Your task to perform on an android device: open app "Google Pay: Save, Pay, Manage" Image 0: 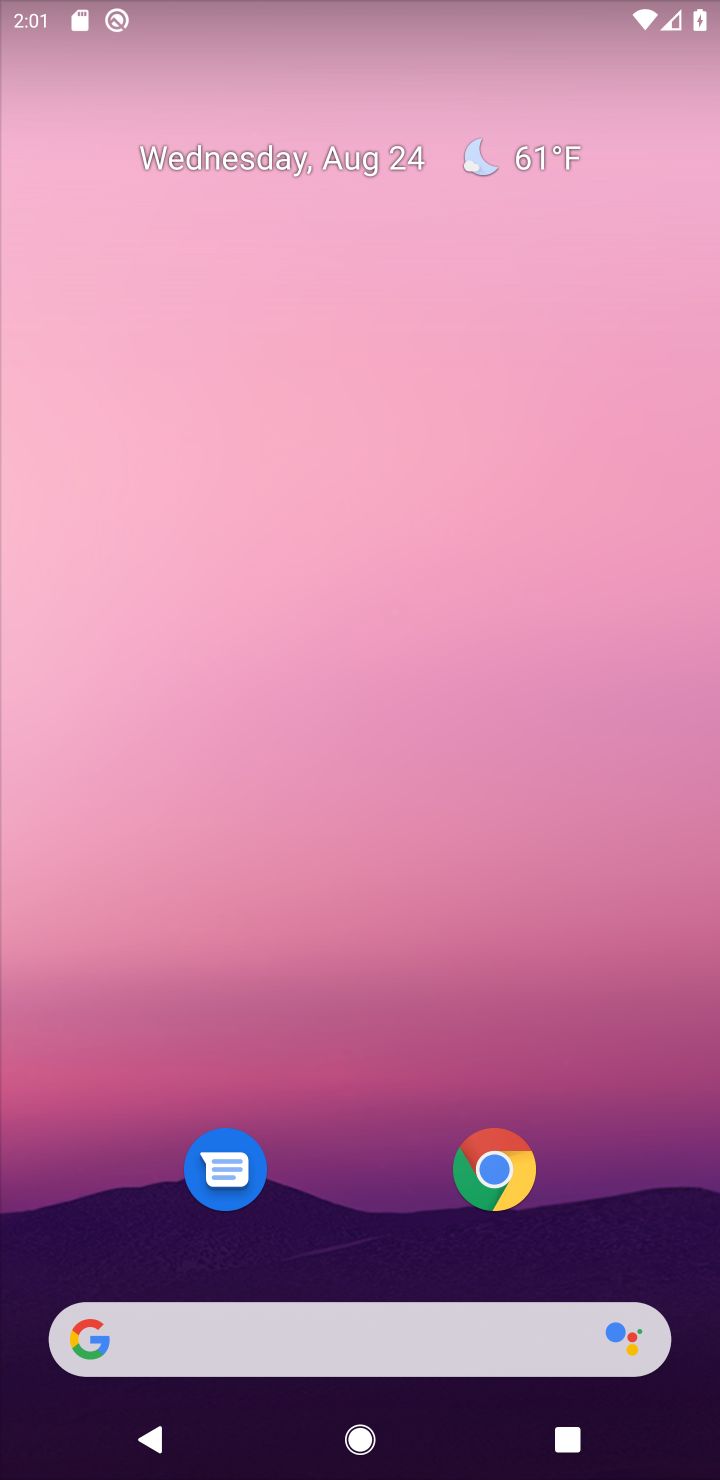
Step 0: drag from (335, 1240) to (626, 39)
Your task to perform on an android device: open app "Google Pay: Save, Pay, Manage" Image 1: 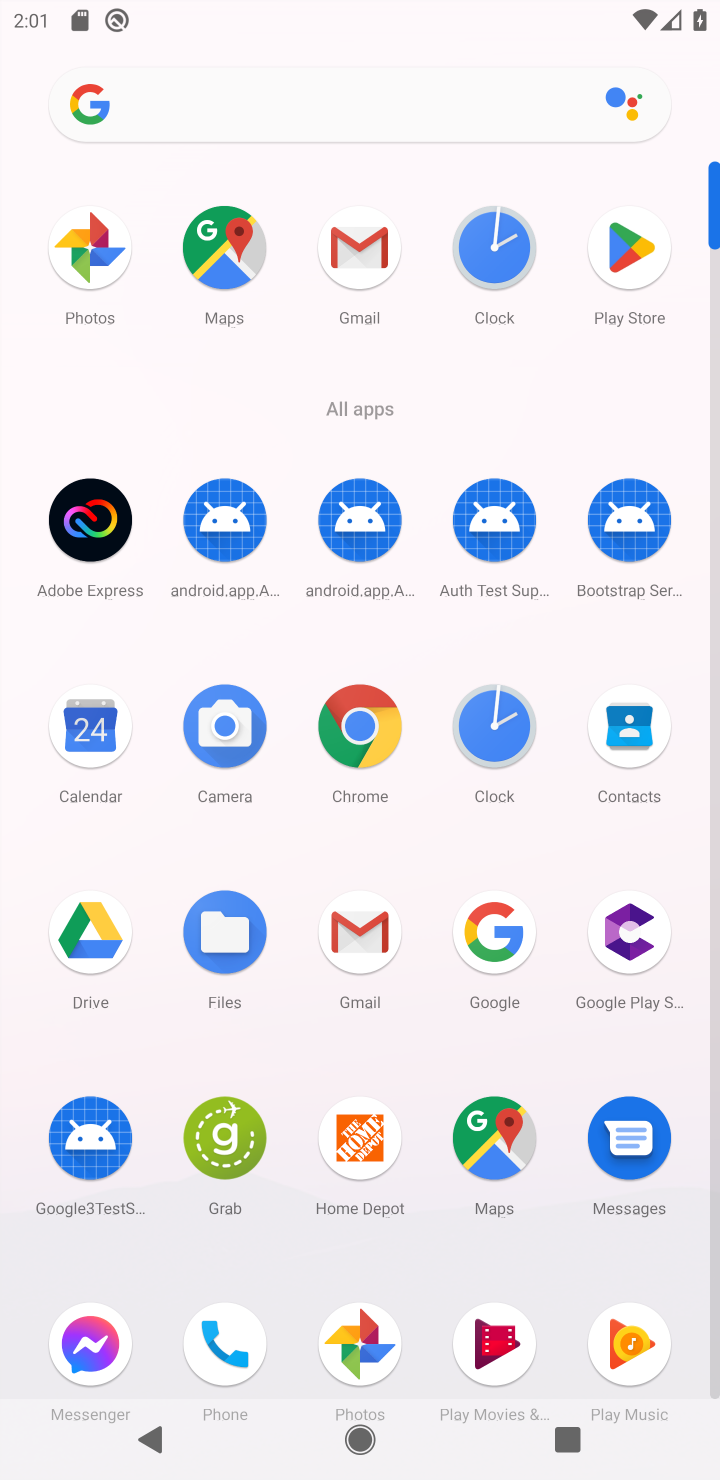
Step 1: click (618, 298)
Your task to perform on an android device: open app "Google Pay: Save, Pay, Manage" Image 2: 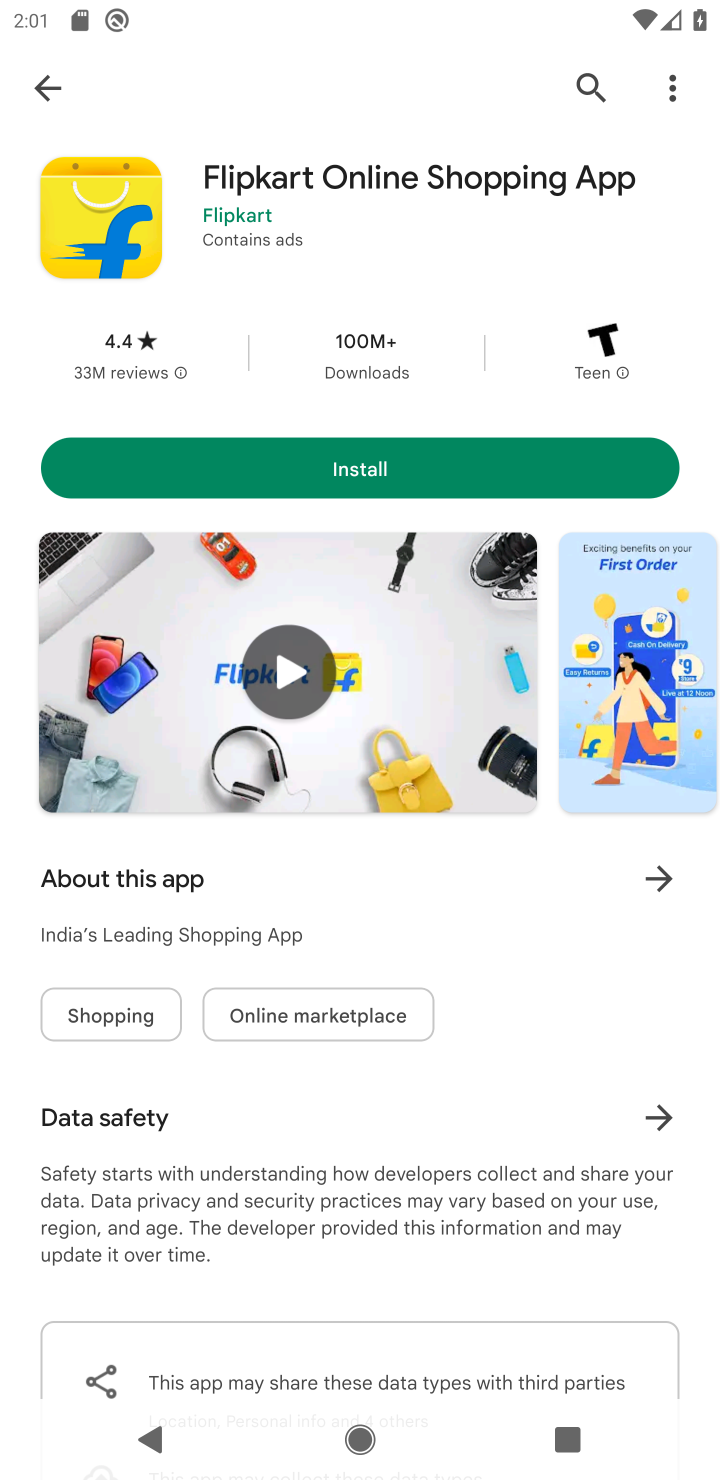
Step 2: click (581, 84)
Your task to perform on an android device: open app "Google Pay: Save, Pay, Manage" Image 3: 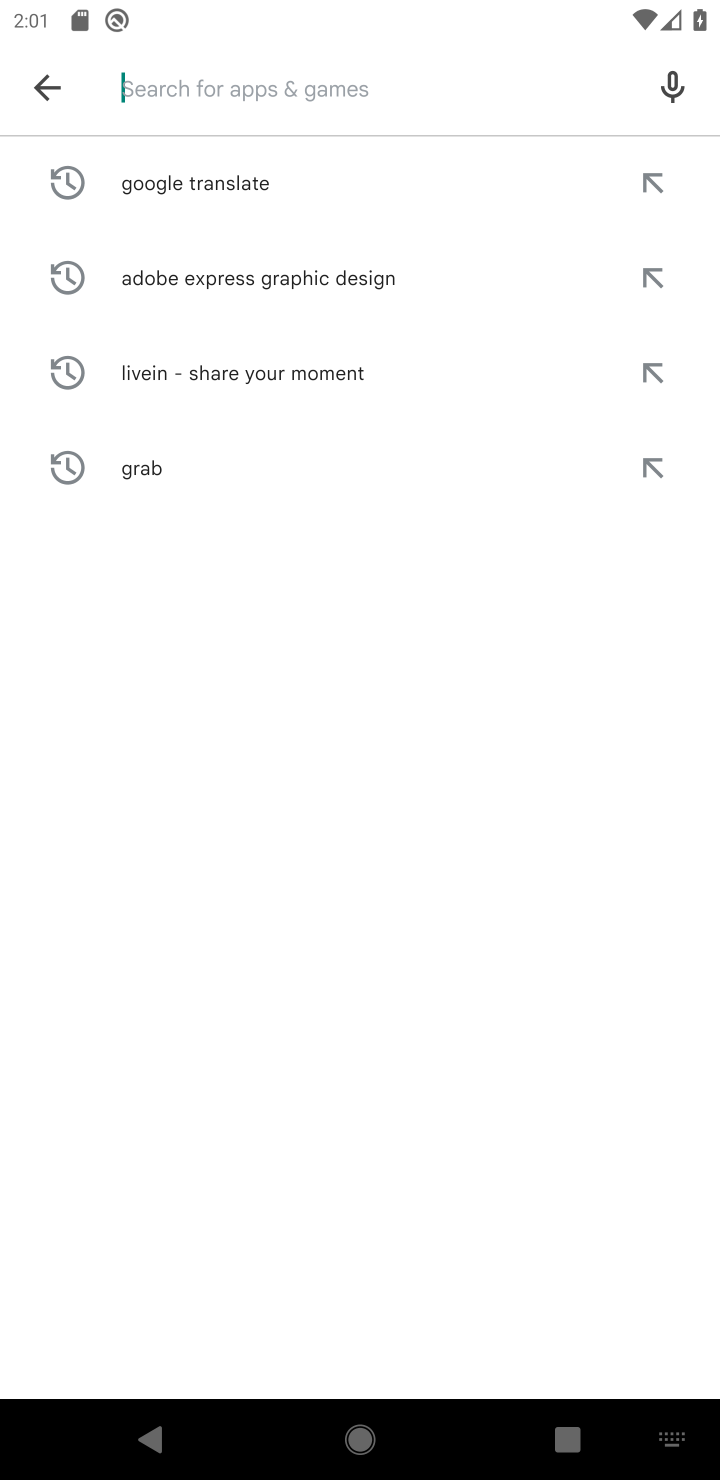
Step 3: type "Google Pay: Save, Pay, Manage"
Your task to perform on an android device: open app "Google Pay: Save, Pay, Manage" Image 4: 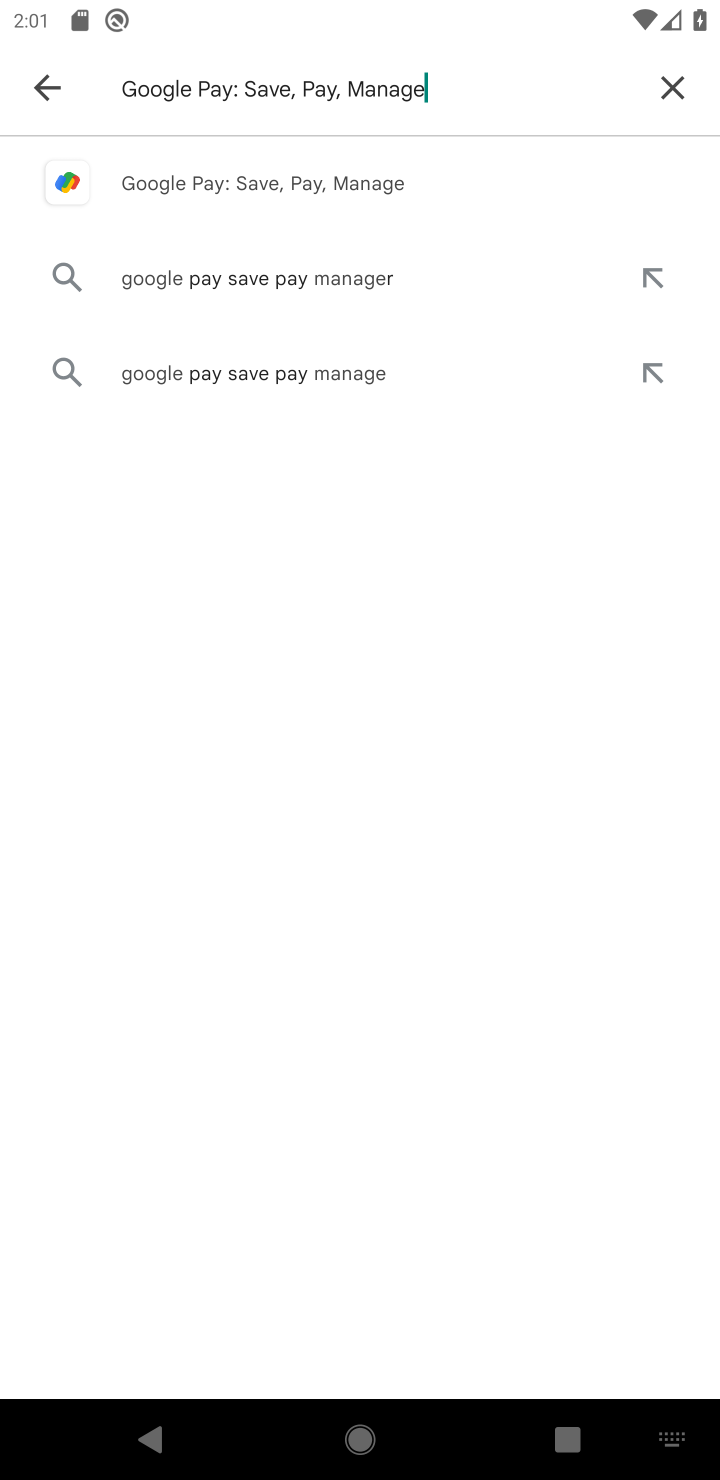
Step 4: click (239, 178)
Your task to perform on an android device: open app "Google Pay: Save, Pay, Manage" Image 5: 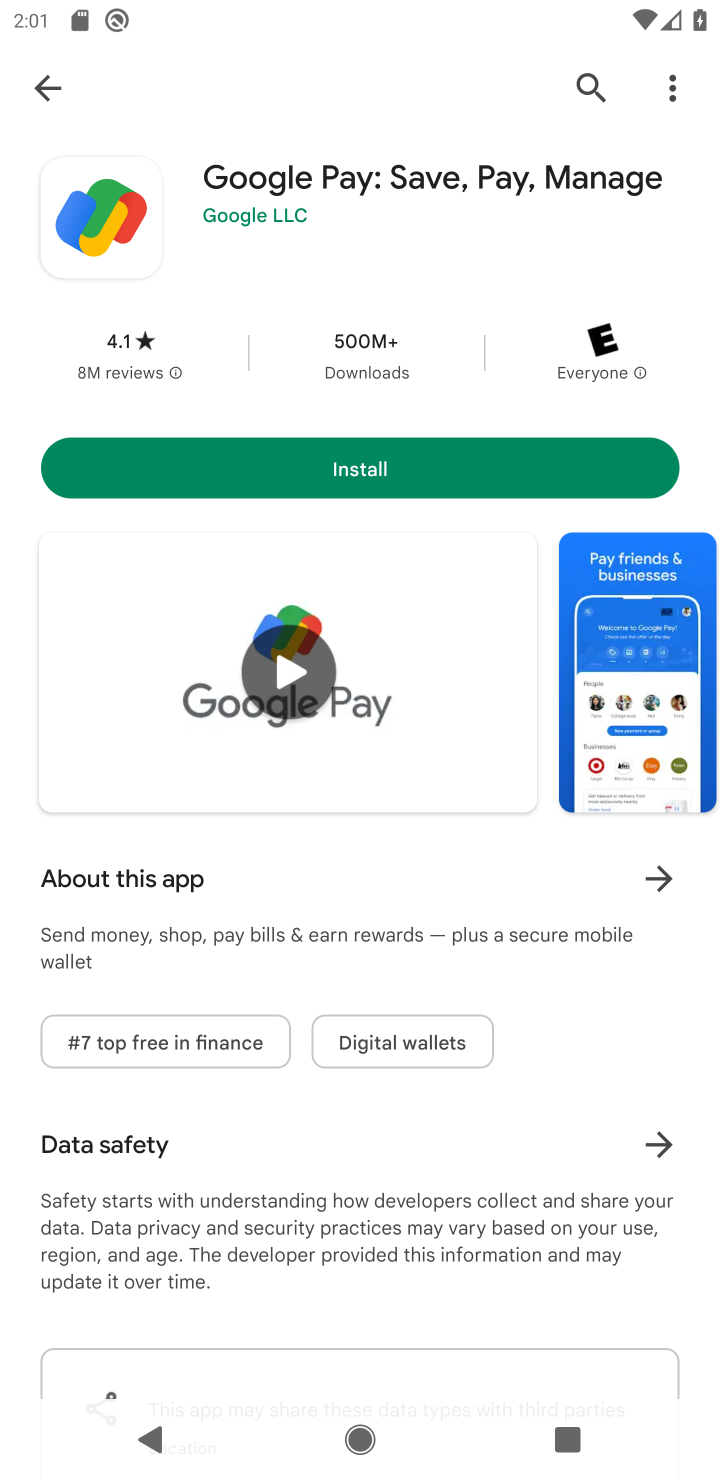
Step 5: task complete